Your task to perform on an android device: Go to battery settings Image 0: 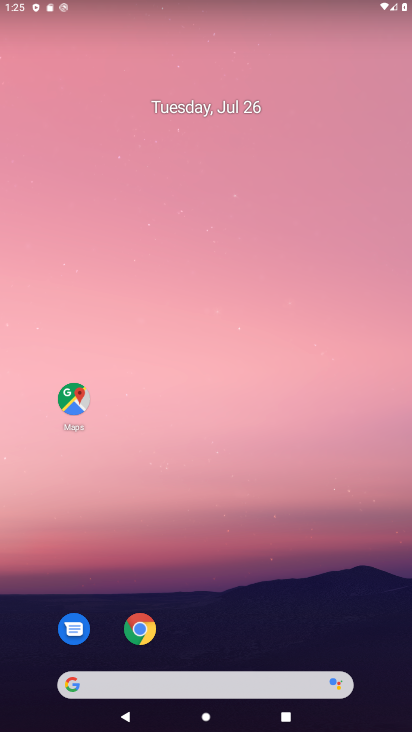
Step 0: drag from (117, 702) to (285, 7)
Your task to perform on an android device: Go to battery settings Image 1: 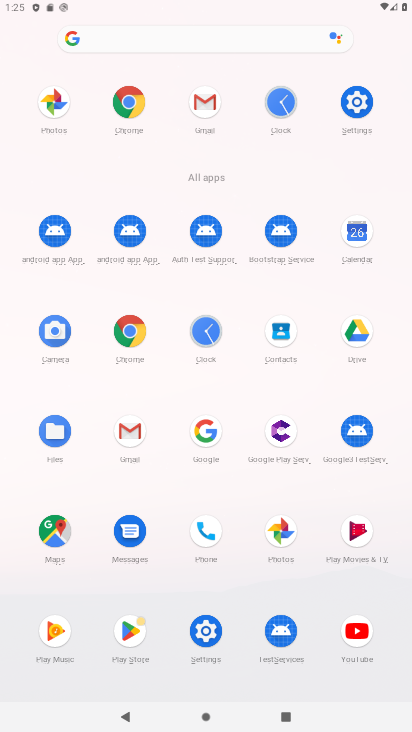
Step 1: click (383, 111)
Your task to perform on an android device: Go to battery settings Image 2: 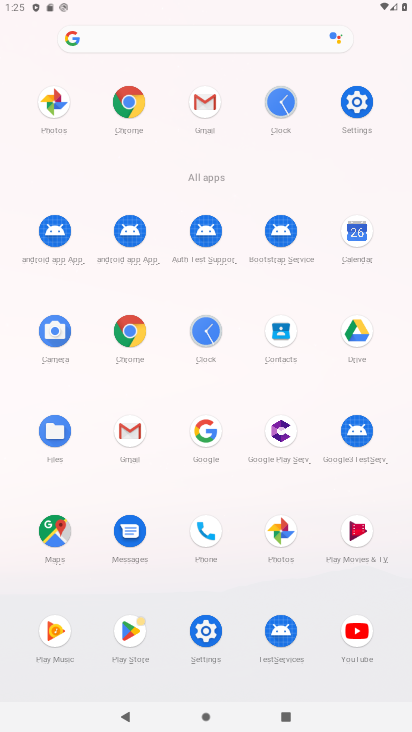
Step 2: click (356, 97)
Your task to perform on an android device: Go to battery settings Image 3: 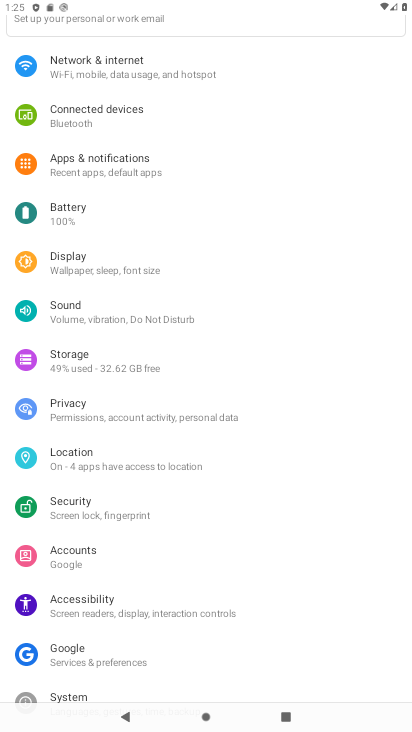
Step 3: click (105, 222)
Your task to perform on an android device: Go to battery settings Image 4: 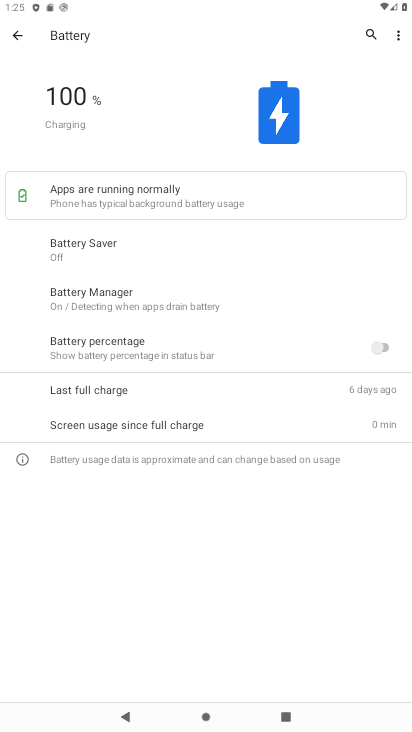
Step 4: task complete